Your task to perform on an android device: clear history in the chrome app Image 0: 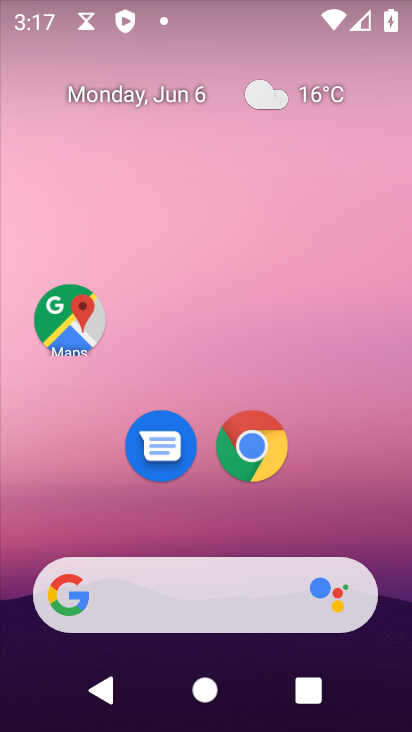
Step 0: click (266, 443)
Your task to perform on an android device: clear history in the chrome app Image 1: 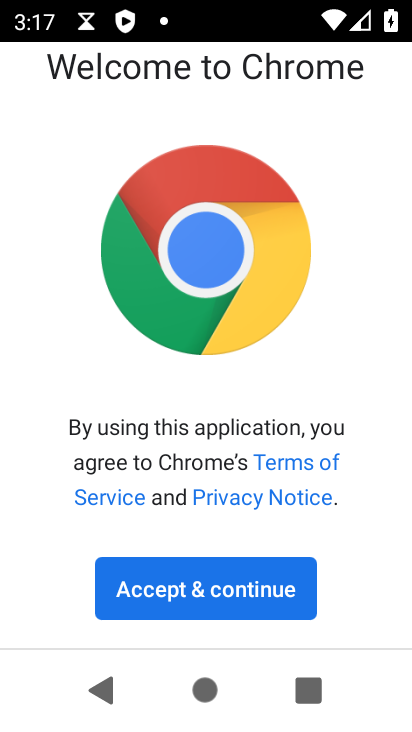
Step 1: click (258, 569)
Your task to perform on an android device: clear history in the chrome app Image 2: 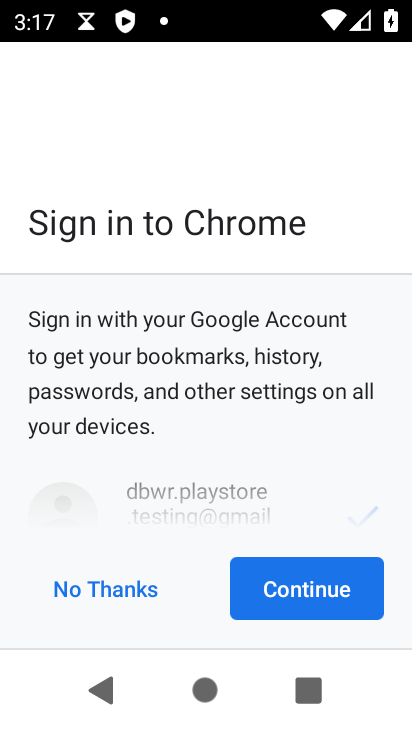
Step 2: click (320, 585)
Your task to perform on an android device: clear history in the chrome app Image 3: 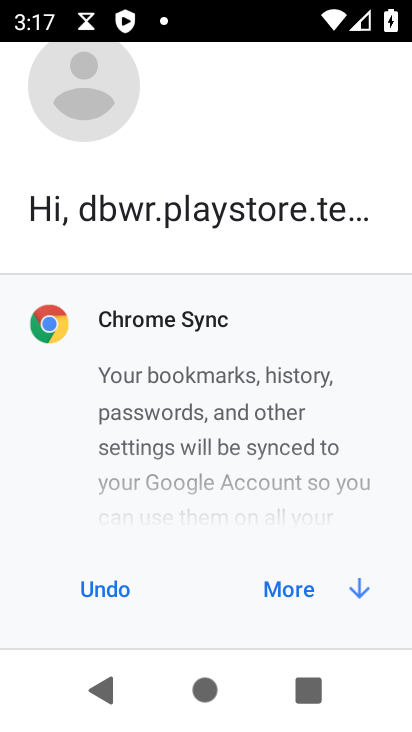
Step 3: click (301, 584)
Your task to perform on an android device: clear history in the chrome app Image 4: 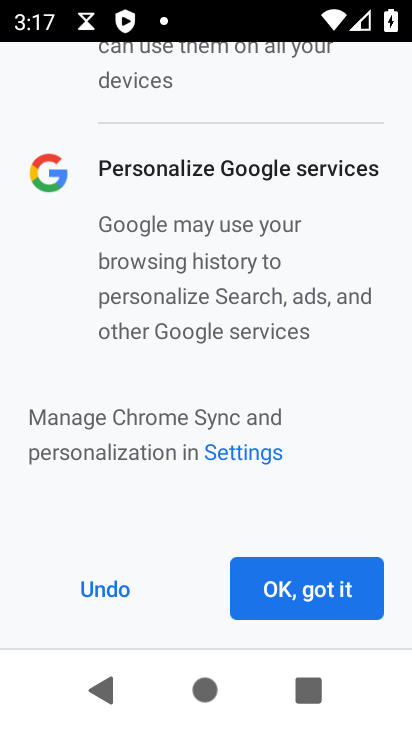
Step 4: click (304, 598)
Your task to perform on an android device: clear history in the chrome app Image 5: 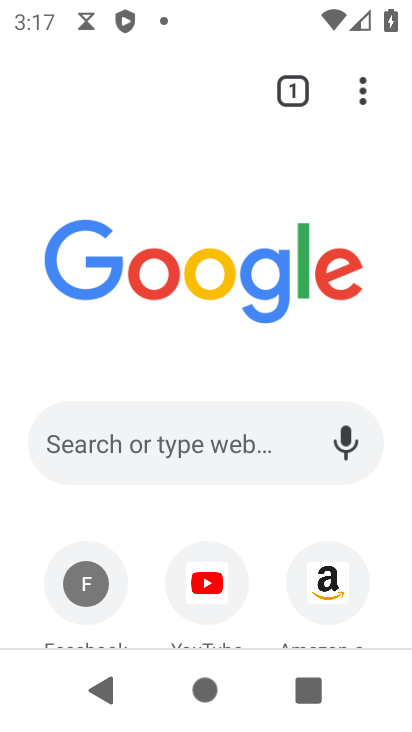
Step 5: task complete